Your task to perform on an android device: read, delete, or share a saved page in the chrome app Image 0: 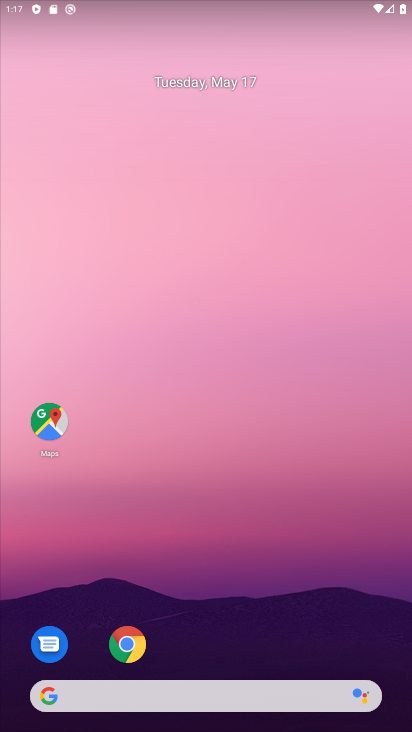
Step 0: click (143, 633)
Your task to perform on an android device: read, delete, or share a saved page in the chrome app Image 1: 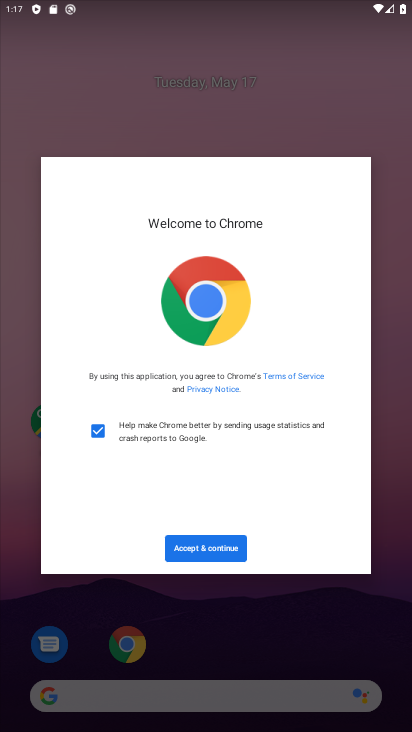
Step 1: click (226, 545)
Your task to perform on an android device: read, delete, or share a saved page in the chrome app Image 2: 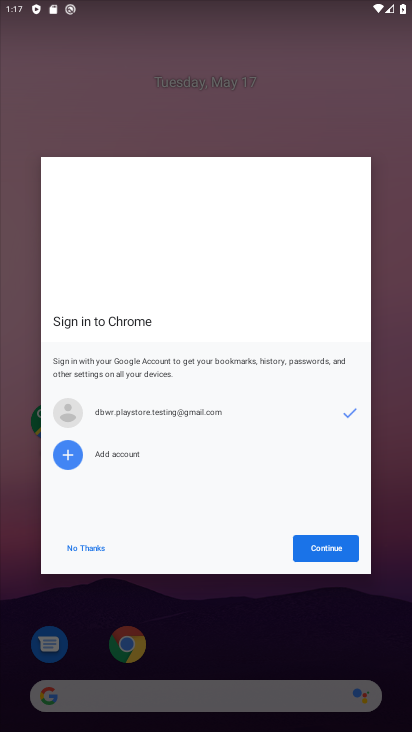
Step 2: click (333, 540)
Your task to perform on an android device: read, delete, or share a saved page in the chrome app Image 3: 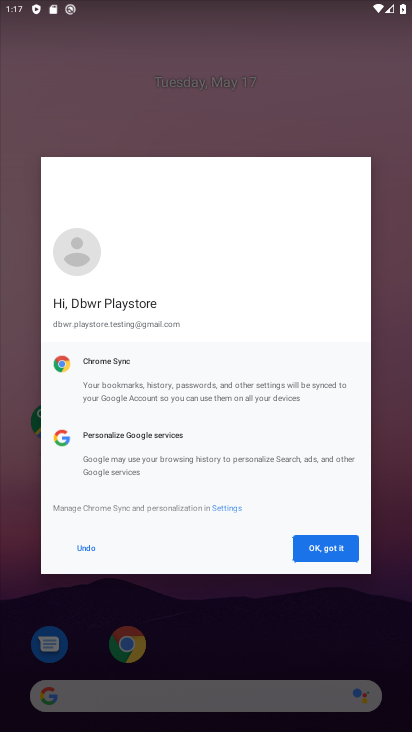
Step 3: click (328, 544)
Your task to perform on an android device: read, delete, or share a saved page in the chrome app Image 4: 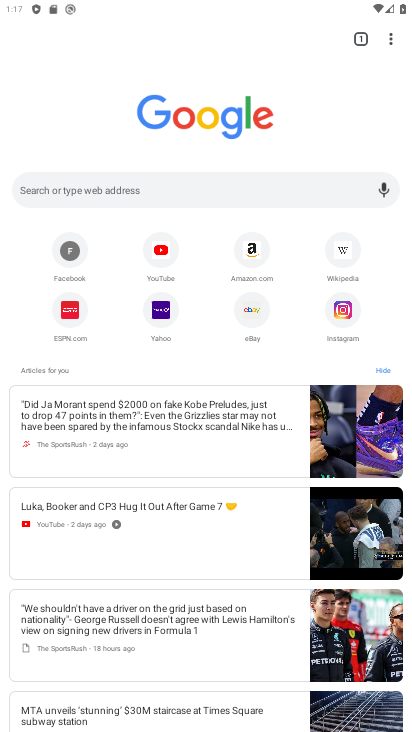
Step 4: task complete